Your task to perform on an android device: remove spam from my inbox in the gmail app Image 0: 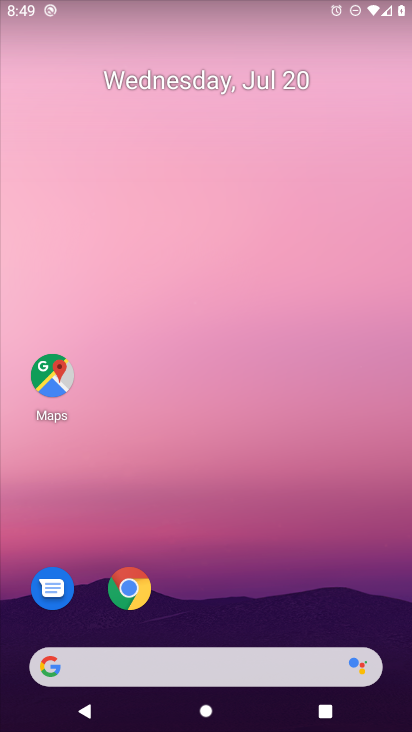
Step 0: drag from (71, 606) to (265, 142)
Your task to perform on an android device: remove spam from my inbox in the gmail app Image 1: 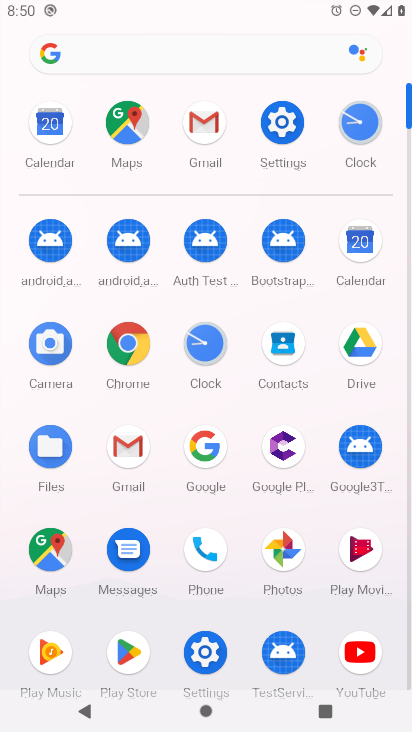
Step 1: click (205, 130)
Your task to perform on an android device: remove spam from my inbox in the gmail app Image 2: 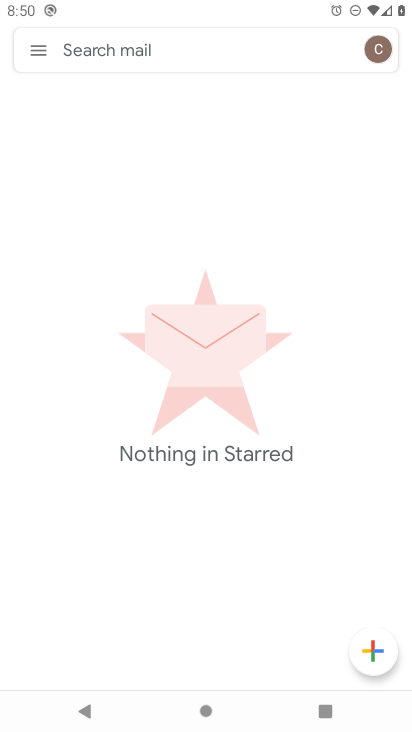
Step 2: click (38, 53)
Your task to perform on an android device: remove spam from my inbox in the gmail app Image 3: 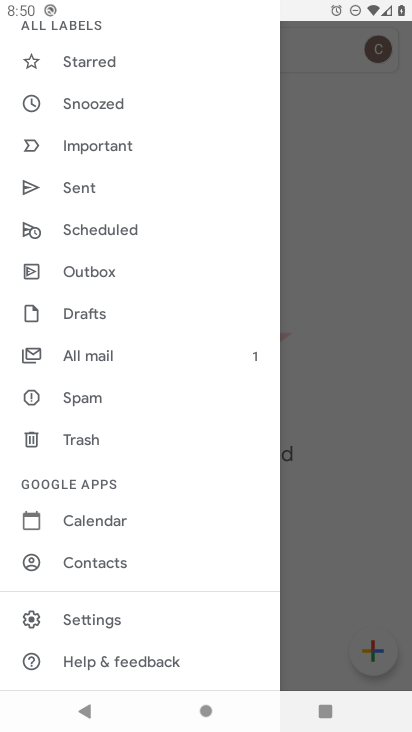
Step 3: click (94, 391)
Your task to perform on an android device: remove spam from my inbox in the gmail app Image 4: 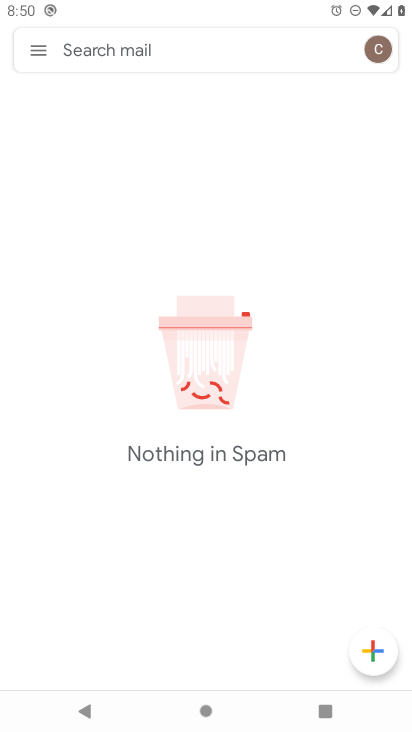
Step 4: task complete